Your task to perform on an android device: allow notifications from all sites in the chrome app Image 0: 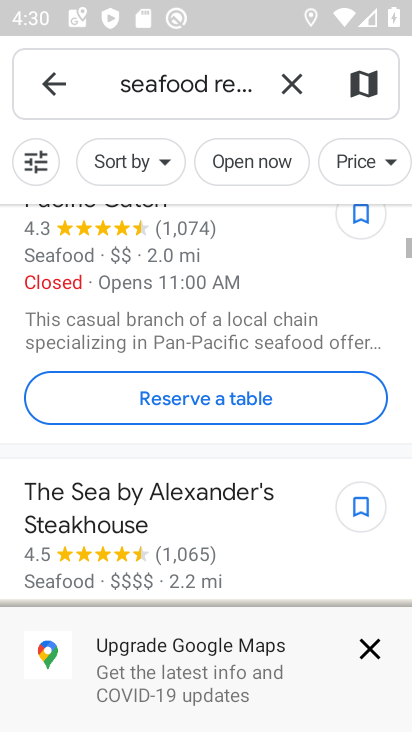
Step 0: press back button
Your task to perform on an android device: allow notifications from all sites in the chrome app Image 1: 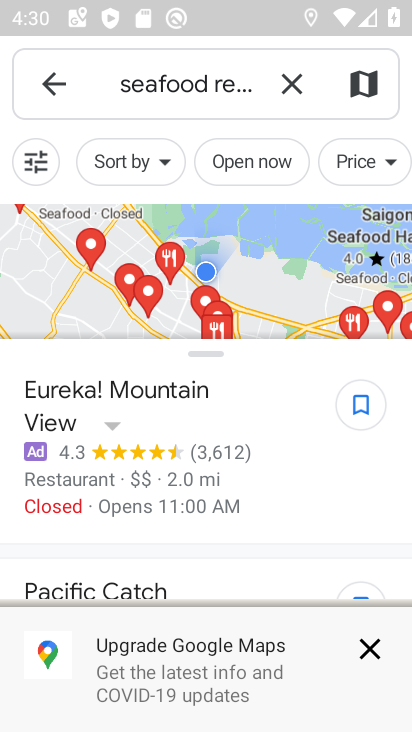
Step 1: press back button
Your task to perform on an android device: allow notifications from all sites in the chrome app Image 2: 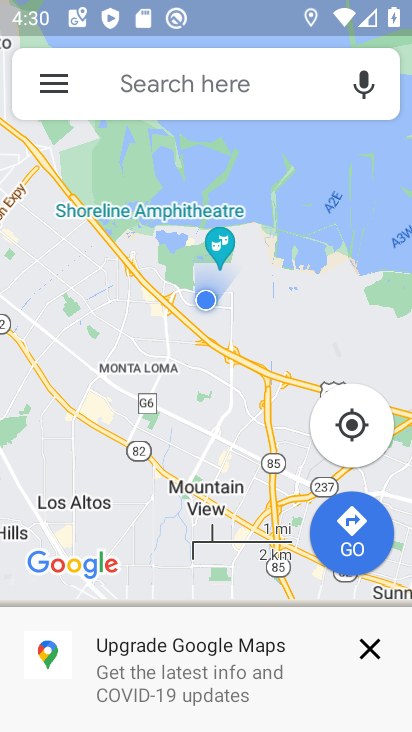
Step 2: press back button
Your task to perform on an android device: allow notifications from all sites in the chrome app Image 3: 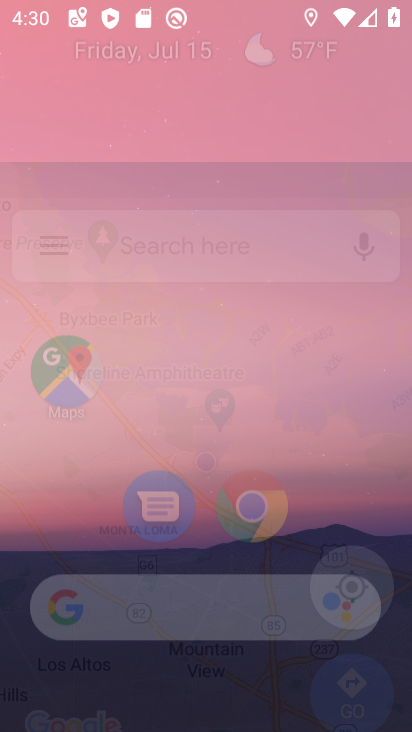
Step 3: press back button
Your task to perform on an android device: allow notifications from all sites in the chrome app Image 4: 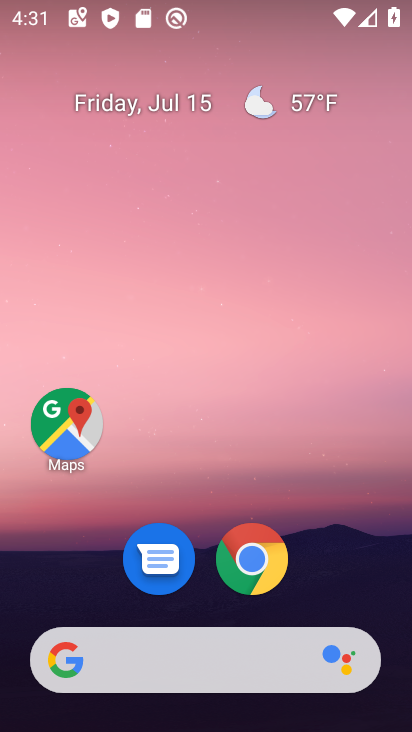
Step 4: click (254, 548)
Your task to perform on an android device: allow notifications from all sites in the chrome app Image 5: 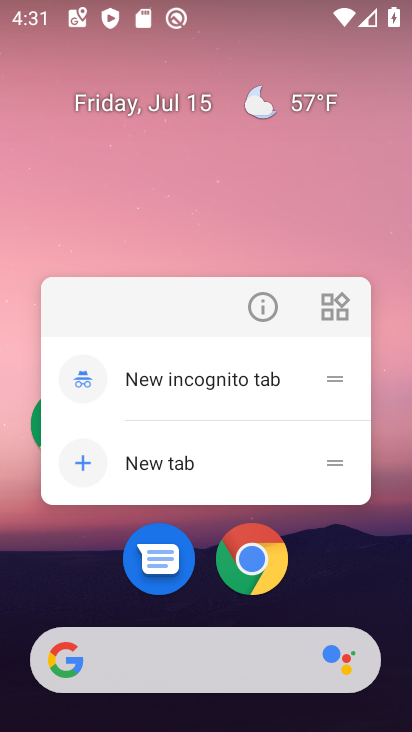
Step 5: click (267, 305)
Your task to perform on an android device: allow notifications from all sites in the chrome app Image 6: 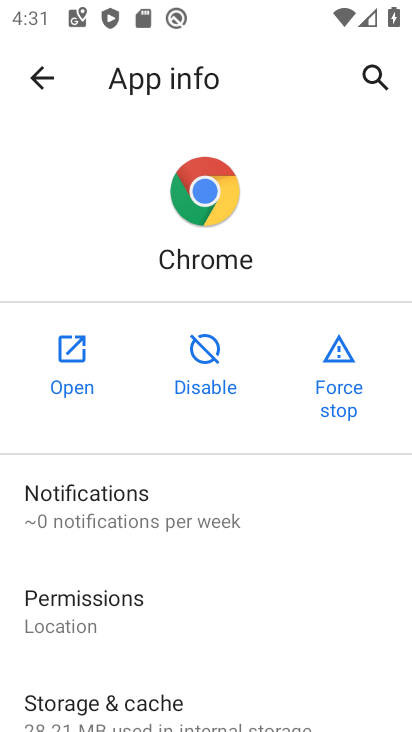
Step 6: click (148, 528)
Your task to perform on an android device: allow notifications from all sites in the chrome app Image 7: 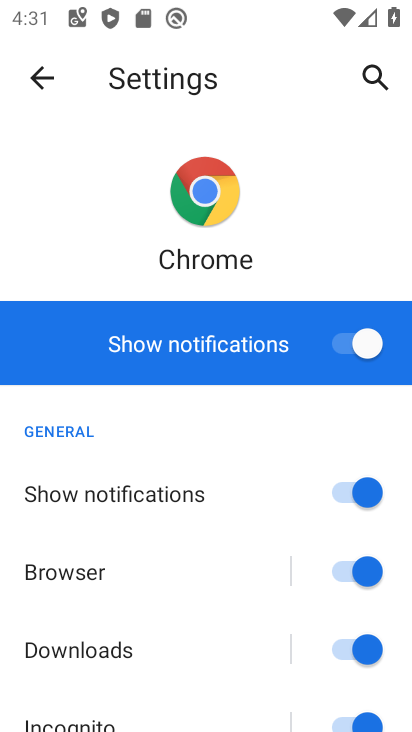
Step 7: task complete